Your task to perform on an android device: Play the last video I watched on Youtube Image 0: 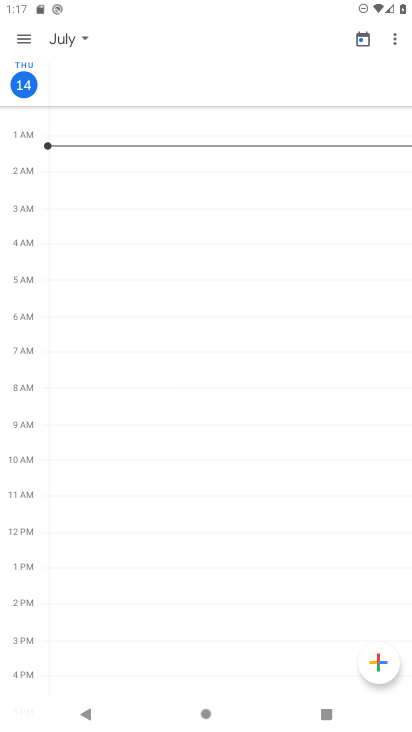
Step 0: press home button
Your task to perform on an android device: Play the last video I watched on Youtube Image 1: 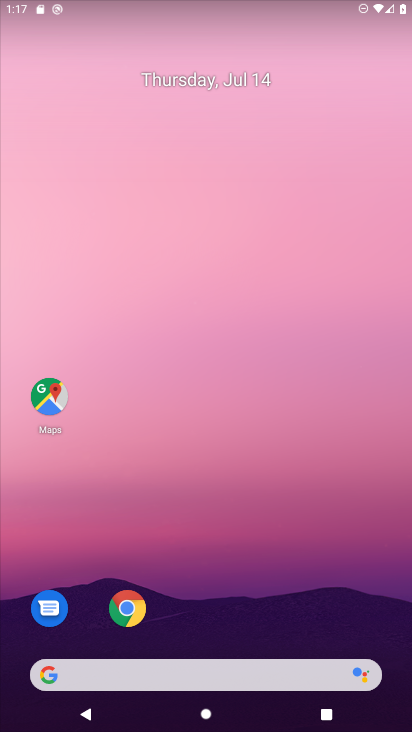
Step 1: drag from (246, 727) to (241, 527)
Your task to perform on an android device: Play the last video I watched on Youtube Image 2: 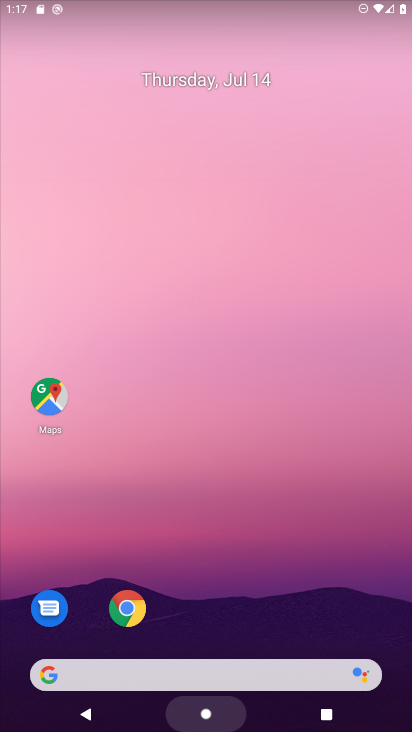
Step 2: click (234, 163)
Your task to perform on an android device: Play the last video I watched on Youtube Image 3: 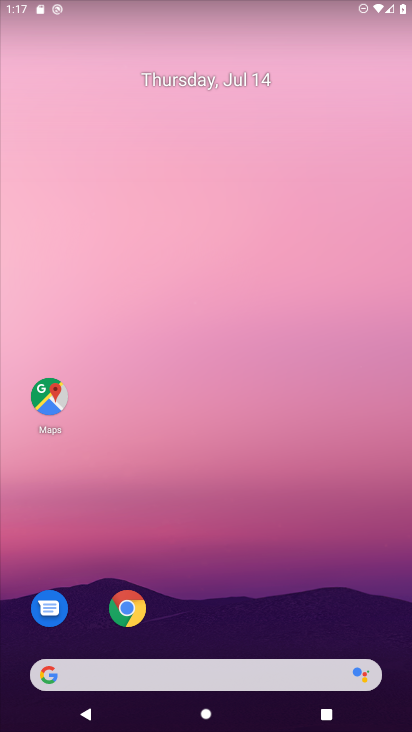
Step 3: drag from (238, 715) to (251, 84)
Your task to perform on an android device: Play the last video I watched on Youtube Image 4: 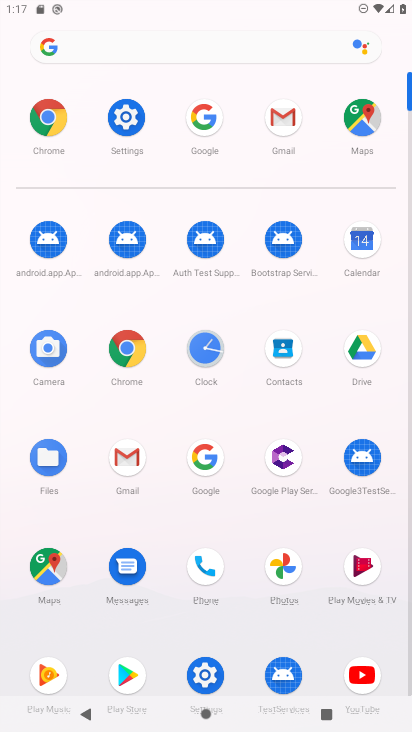
Step 4: click (358, 673)
Your task to perform on an android device: Play the last video I watched on Youtube Image 5: 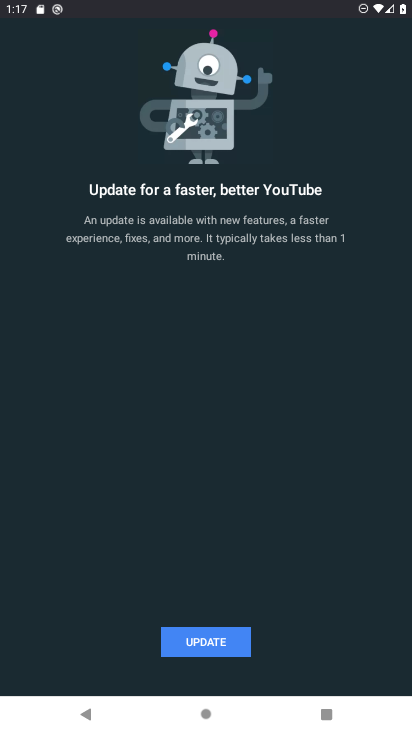
Step 5: task complete